Your task to perform on an android device: Check the news Image 0: 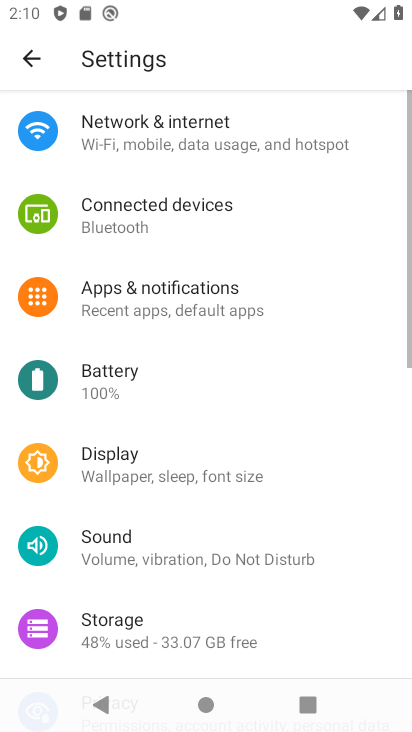
Step 0: press home button
Your task to perform on an android device: Check the news Image 1: 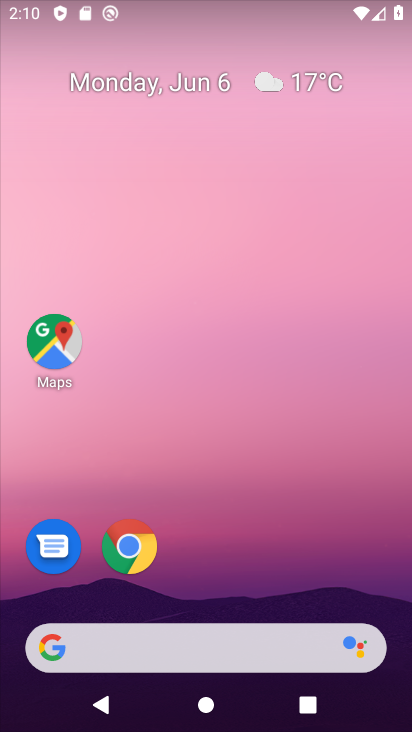
Step 1: click (128, 546)
Your task to perform on an android device: Check the news Image 2: 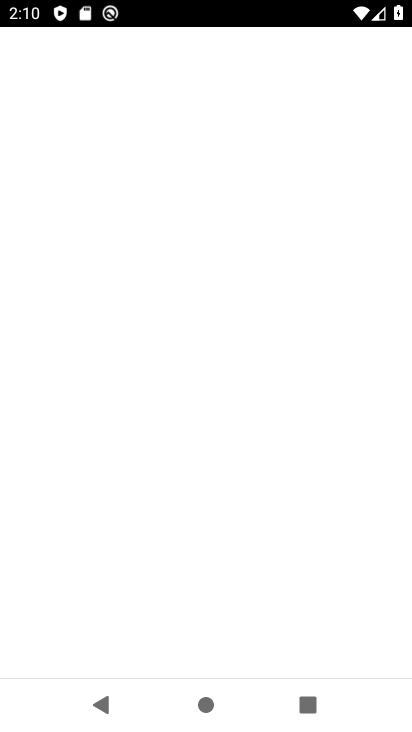
Step 2: click (130, 545)
Your task to perform on an android device: Check the news Image 3: 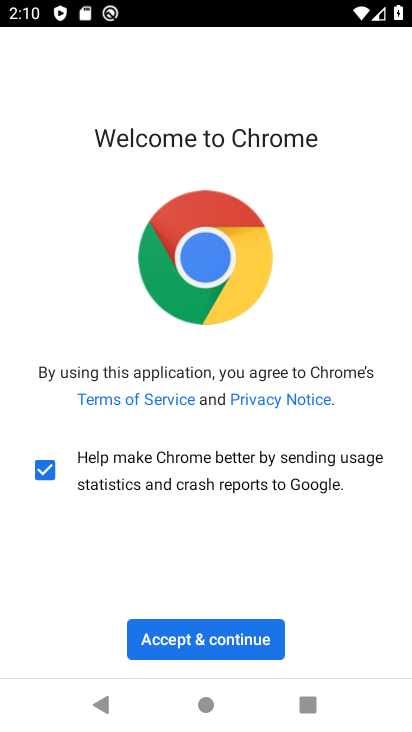
Step 3: click (177, 635)
Your task to perform on an android device: Check the news Image 4: 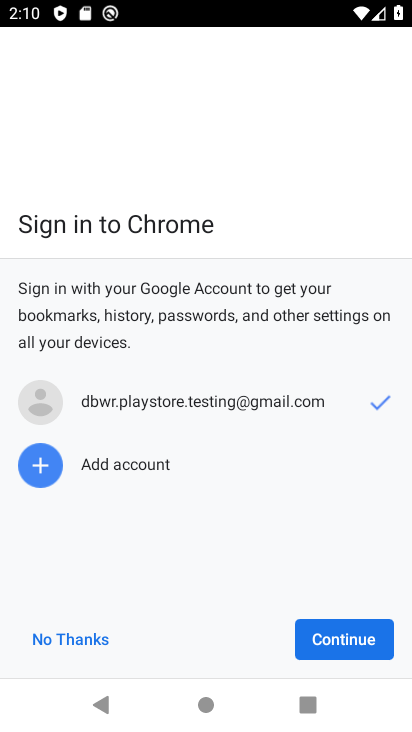
Step 4: click (362, 635)
Your task to perform on an android device: Check the news Image 5: 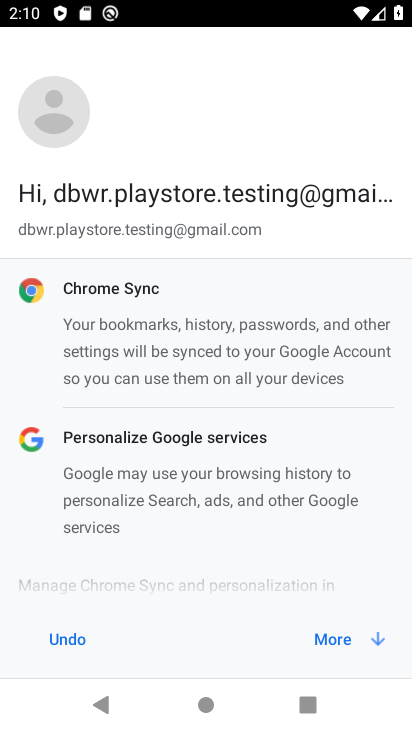
Step 5: click (306, 633)
Your task to perform on an android device: Check the news Image 6: 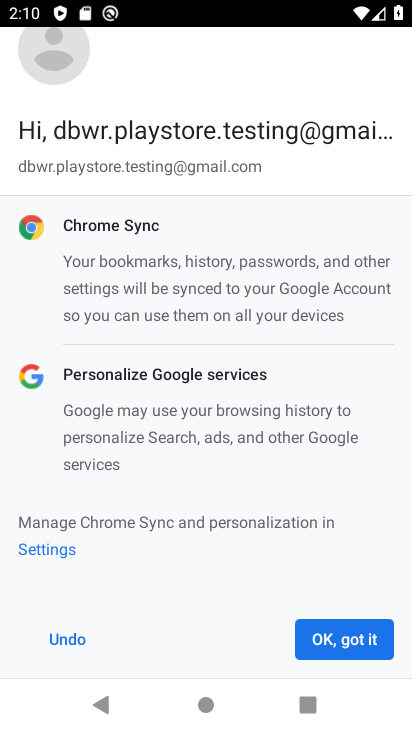
Step 6: click (334, 630)
Your task to perform on an android device: Check the news Image 7: 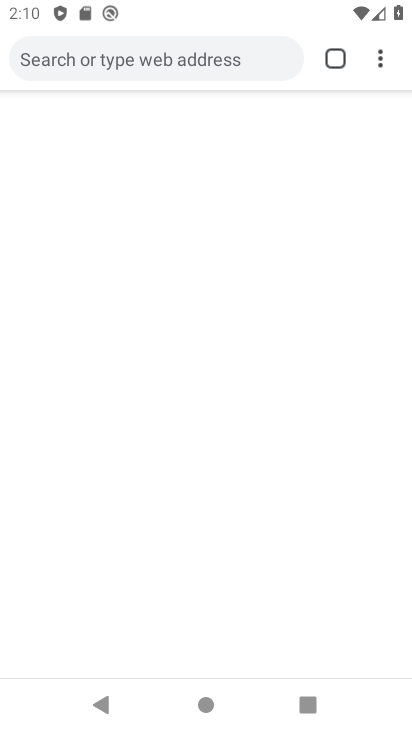
Step 7: click (374, 53)
Your task to perform on an android device: Check the news Image 8: 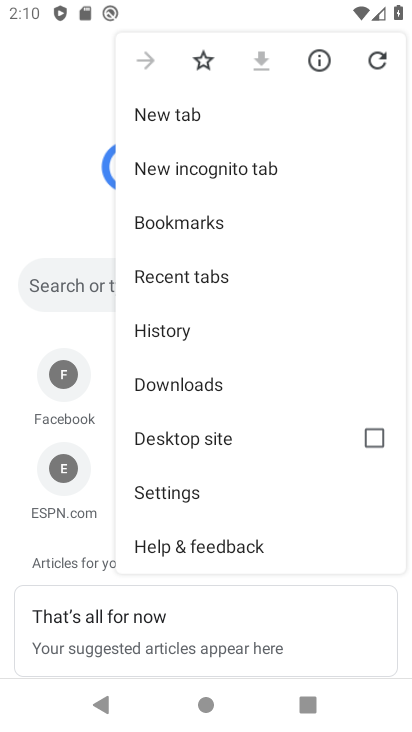
Step 8: click (33, 162)
Your task to perform on an android device: Check the news Image 9: 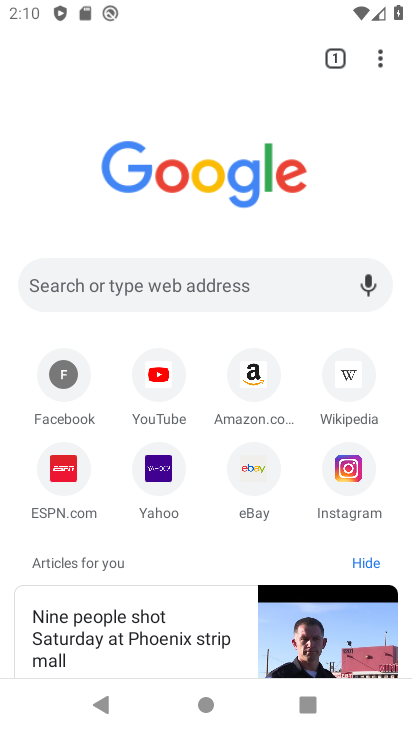
Step 9: click (109, 275)
Your task to perform on an android device: Check the news Image 10: 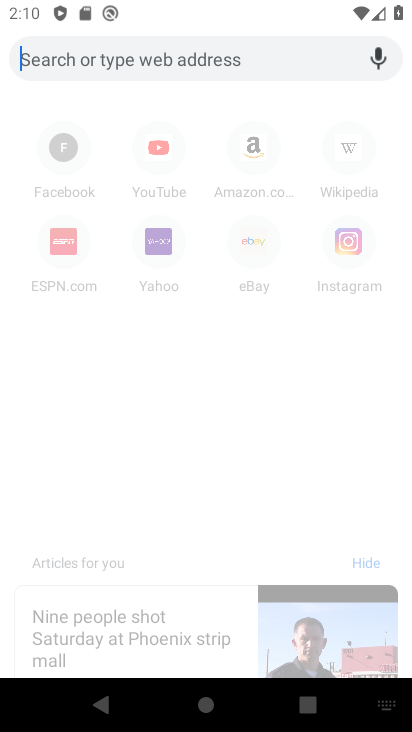
Step 10: type "Check the news"
Your task to perform on an android device: Check the news Image 11: 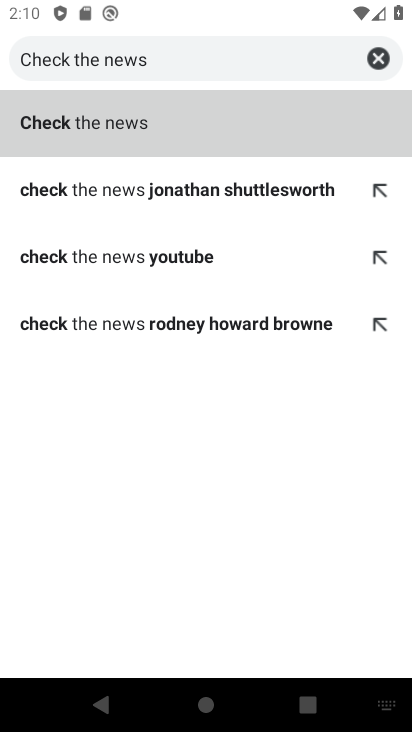
Step 11: click (102, 131)
Your task to perform on an android device: Check the news Image 12: 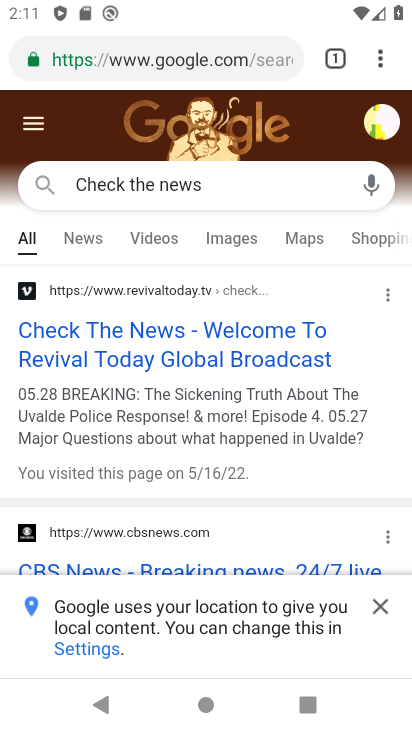
Step 12: task complete